Your task to perform on an android device: What's on my calendar today? Image 0: 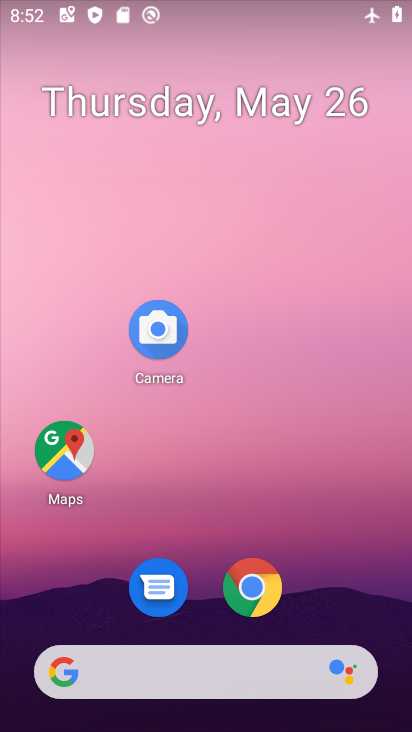
Step 0: drag from (209, 624) to (206, 174)
Your task to perform on an android device: What's on my calendar today? Image 1: 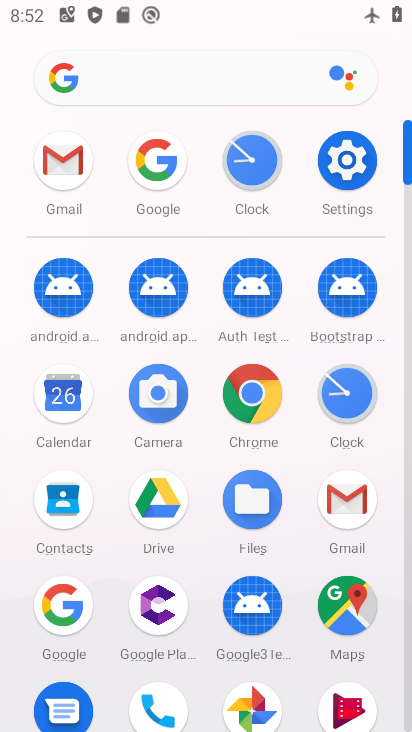
Step 1: click (74, 410)
Your task to perform on an android device: What's on my calendar today? Image 2: 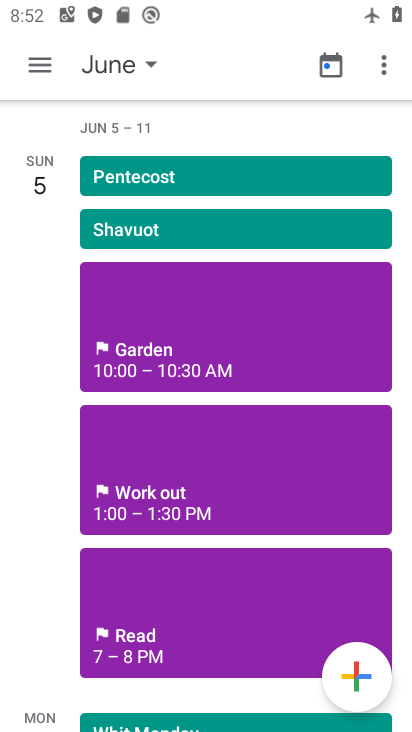
Step 2: click (143, 67)
Your task to perform on an android device: What's on my calendar today? Image 3: 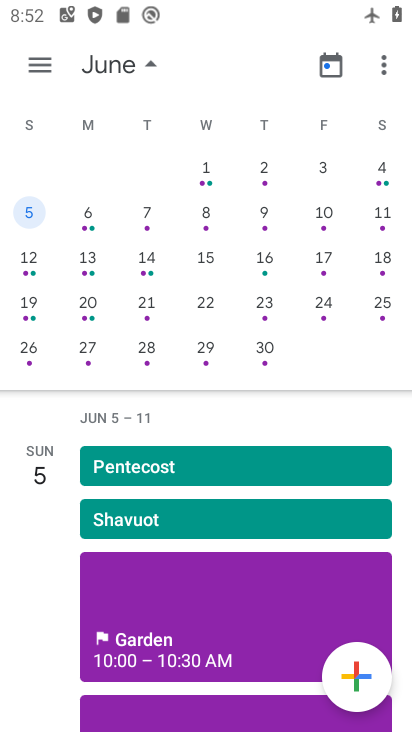
Step 3: drag from (72, 228) to (355, 269)
Your task to perform on an android device: What's on my calendar today? Image 4: 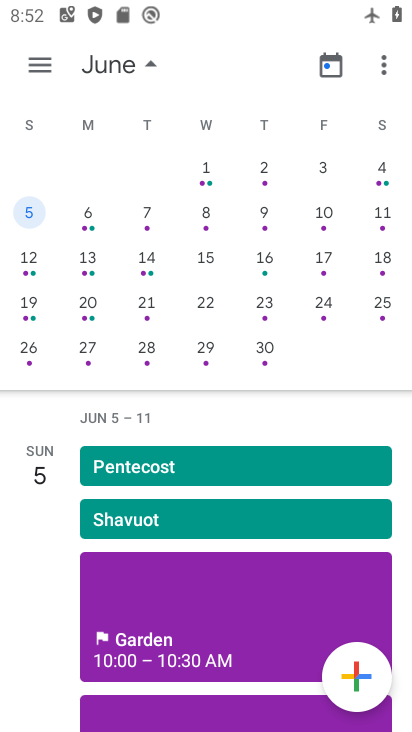
Step 4: drag from (51, 246) to (351, 248)
Your task to perform on an android device: What's on my calendar today? Image 5: 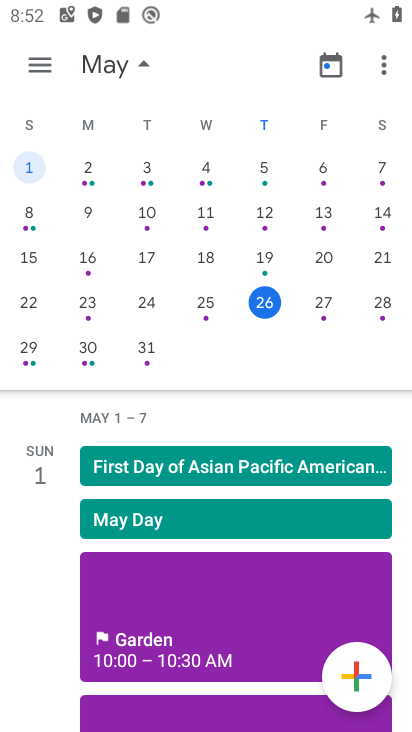
Step 5: click (259, 286)
Your task to perform on an android device: What's on my calendar today? Image 6: 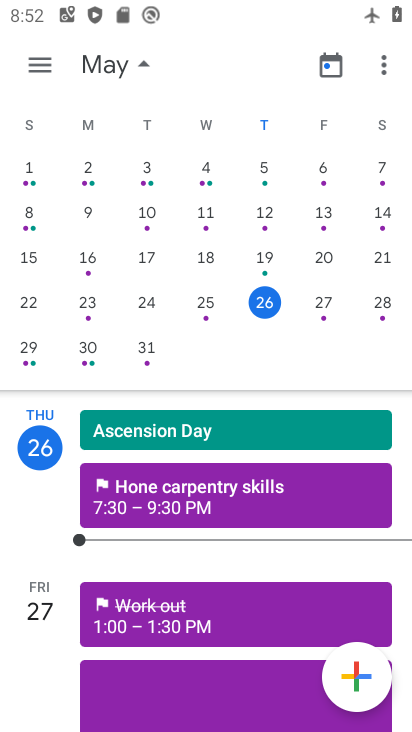
Step 6: task complete